Your task to perform on an android device: turn off picture-in-picture Image 0: 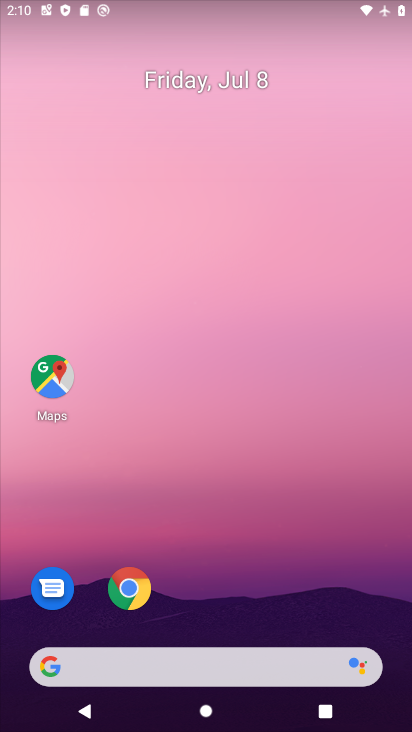
Step 0: press home button
Your task to perform on an android device: turn off picture-in-picture Image 1: 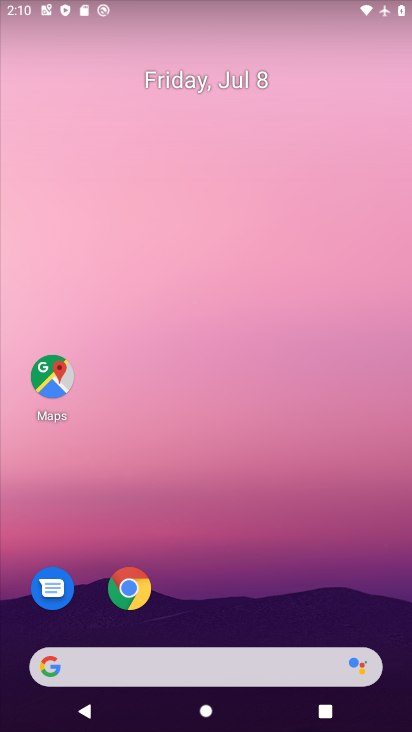
Step 1: click (118, 586)
Your task to perform on an android device: turn off picture-in-picture Image 2: 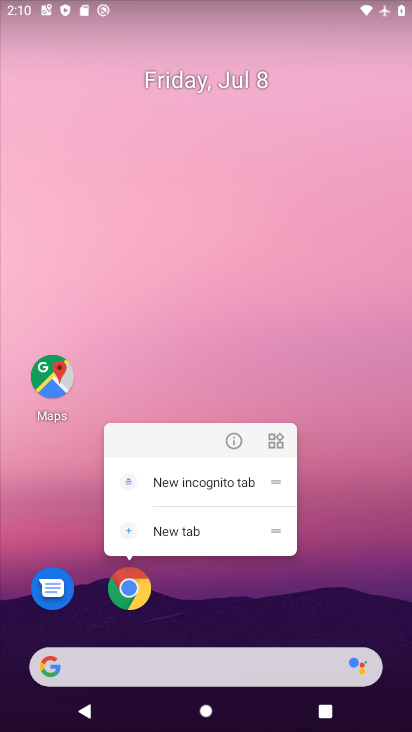
Step 2: click (231, 441)
Your task to perform on an android device: turn off picture-in-picture Image 3: 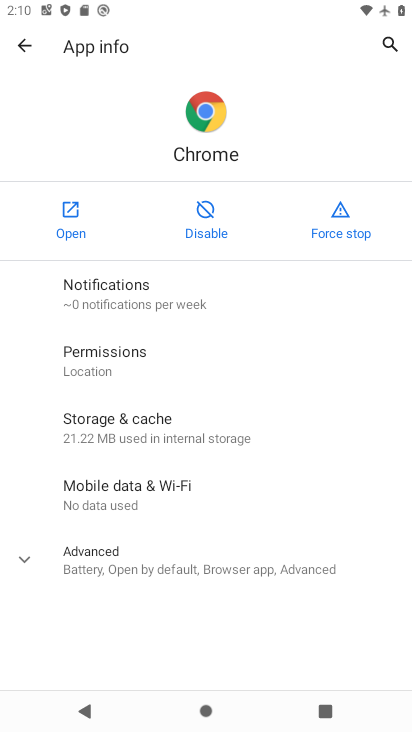
Step 3: click (101, 574)
Your task to perform on an android device: turn off picture-in-picture Image 4: 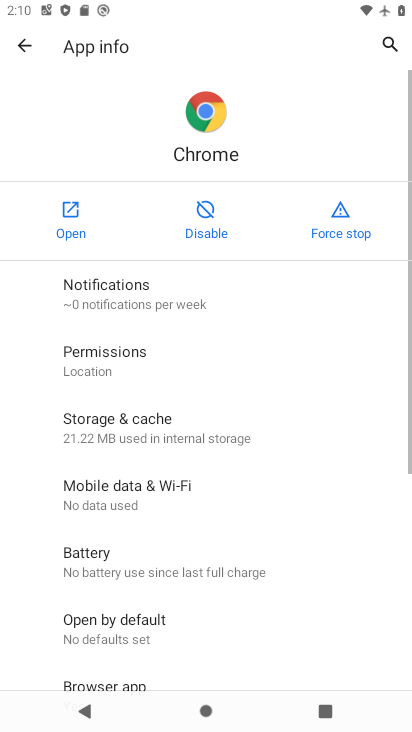
Step 4: drag from (323, 567) to (337, 208)
Your task to perform on an android device: turn off picture-in-picture Image 5: 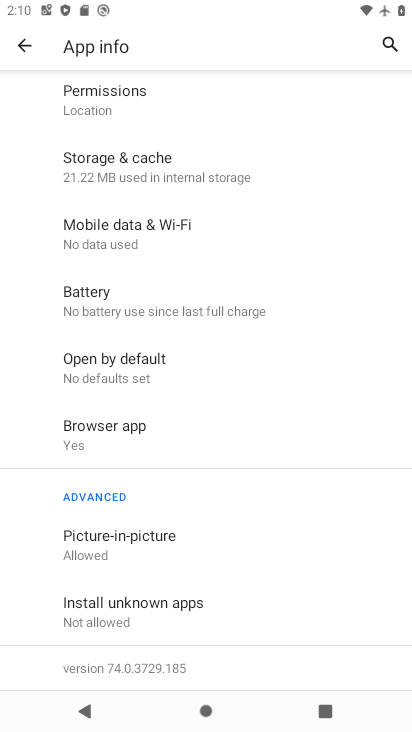
Step 5: click (89, 535)
Your task to perform on an android device: turn off picture-in-picture Image 6: 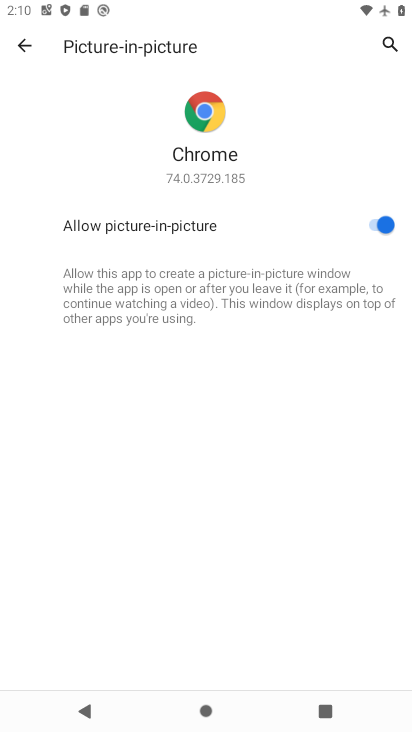
Step 6: click (386, 227)
Your task to perform on an android device: turn off picture-in-picture Image 7: 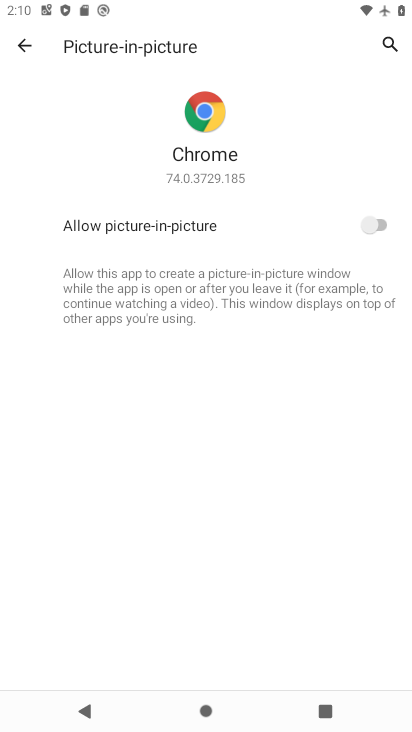
Step 7: task complete